Your task to perform on an android device: Open Youtube and go to "Your channel" Image 0: 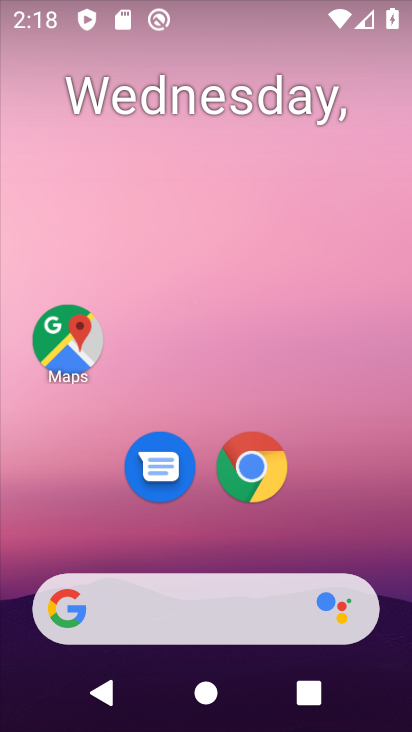
Step 0: press home button
Your task to perform on an android device: Open Youtube and go to "Your channel" Image 1: 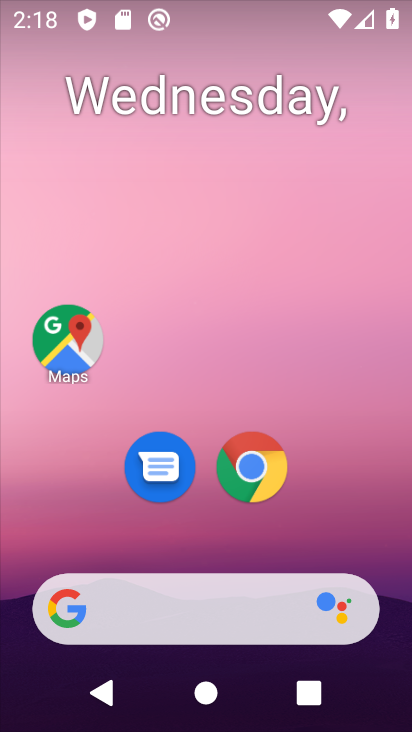
Step 1: drag from (163, 590) to (303, 201)
Your task to perform on an android device: Open Youtube and go to "Your channel" Image 2: 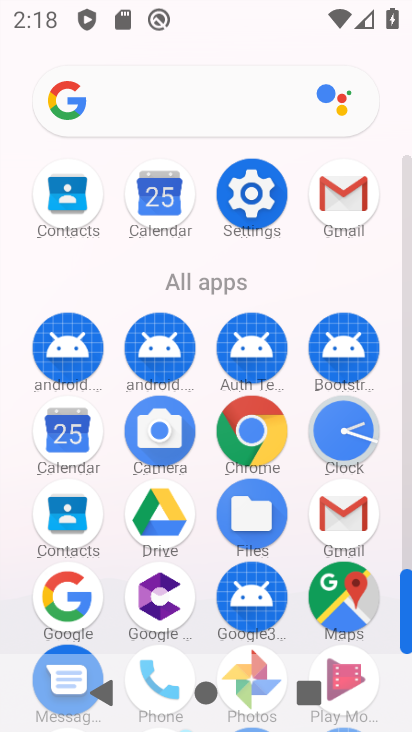
Step 2: drag from (209, 630) to (401, 164)
Your task to perform on an android device: Open Youtube and go to "Your channel" Image 3: 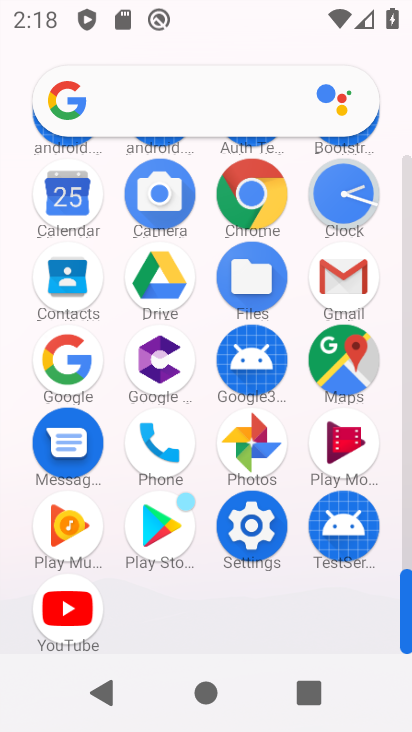
Step 3: click (64, 617)
Your task to perform on an android device: Open Youtube and go to "Your channel" Image 4: 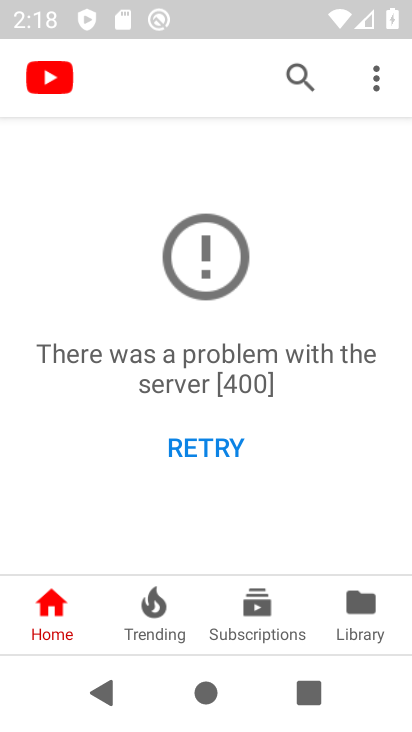
Step 4: click (201, 443)
Your task to perform on an android device: Open Youtube and go to "Your channel" Image 5: 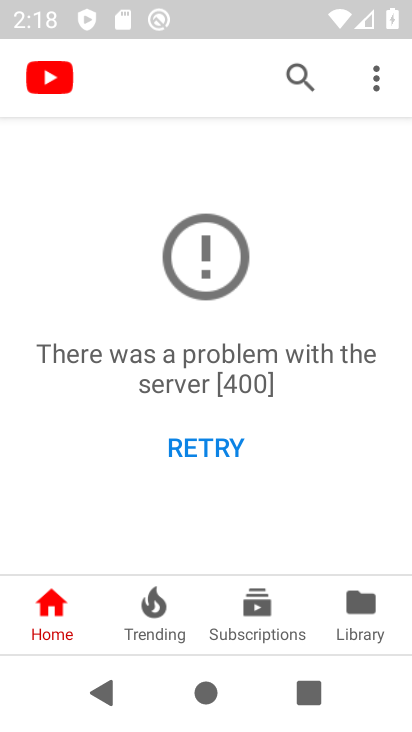
Step 5: click (201, 443)
Your task to perform on an android device: Open Youtube and go to "Your channel" Image 6: 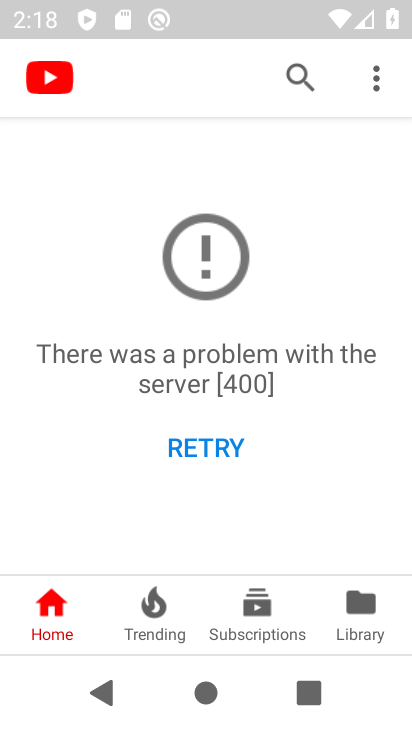
Step 6: click (201, 441)
Your task to perform on an android device: Open Youtube and go to "Your channel" Image 7: 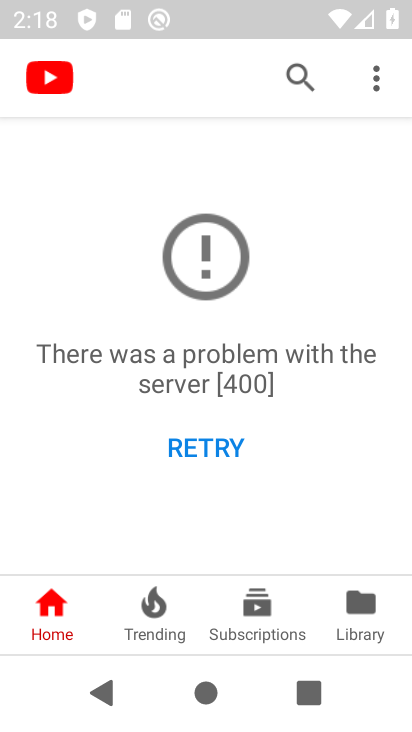
Step 7: click (201, 442)
Your task to perform on an android device: Open Youtube and go to "Your channel" Image 8: 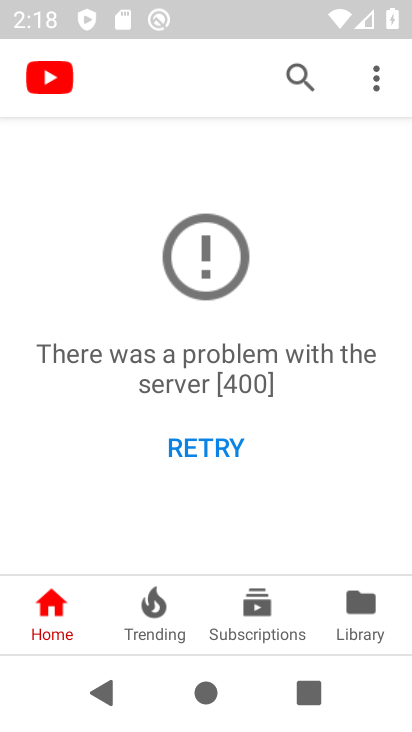
Step 8: task complete